Your task to perform on an android device: turn on improve location accuracy Image 0: 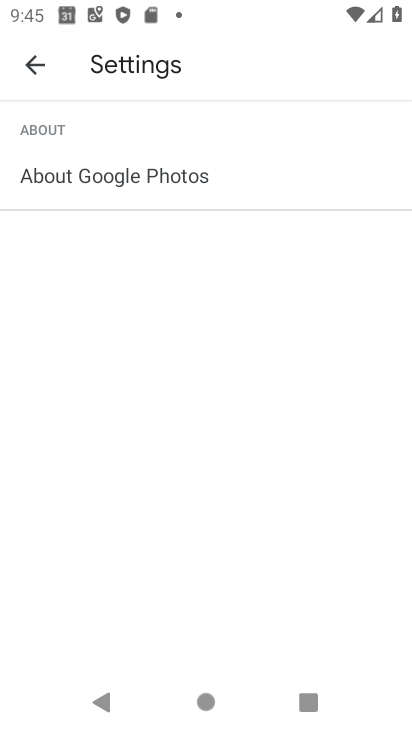
Step 0: press home button
Your task to perform on an android device: turn on improve location accuracy Image 1: 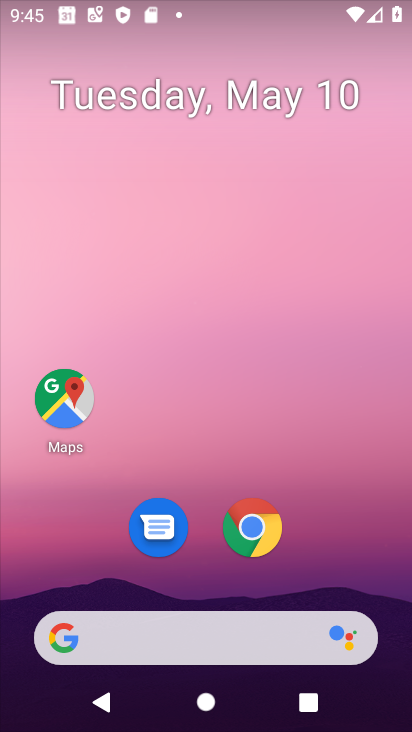
Step 1: drag from (239, 589) to (245, 306)
Your task to perform on an android device: turn on improve location accuracy Image 2: 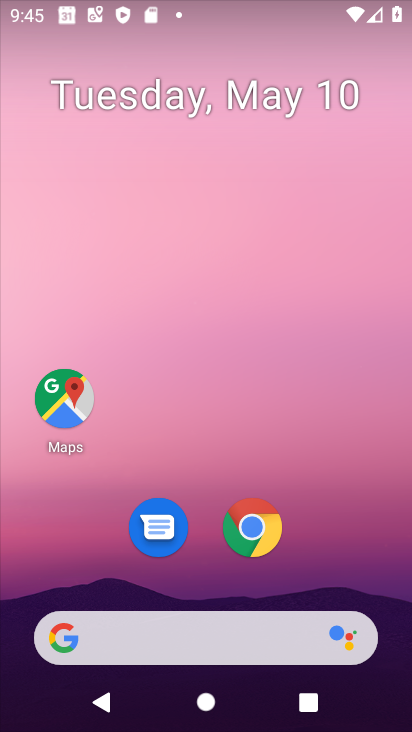
Step 2: drag from (338, 517) to (321, 472)
Your task to perform on an android device: turn on improve location accuracy Image 3: 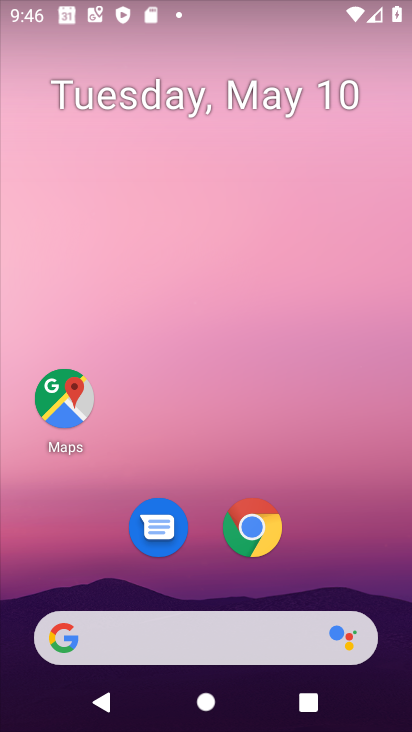
Step 3: drag from (299, 591) to (334, 311)
Your task to perform on an android device: turn on improve location accuracy Image 4: 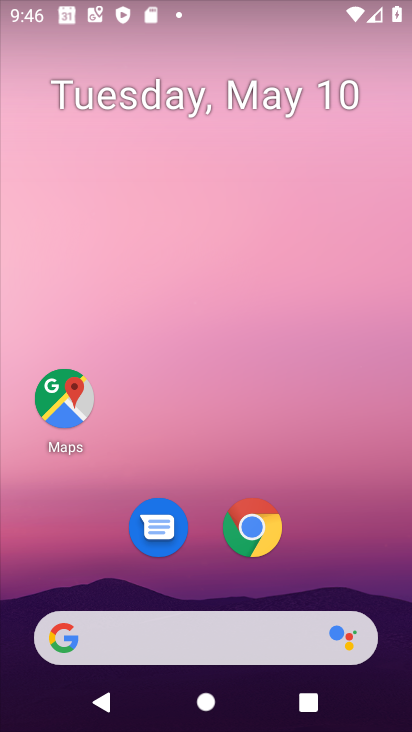
Step 4: drag from (315, 582) to (327, 275)
Your task to perform on an android device: turn on improve location accuracy Image 5: 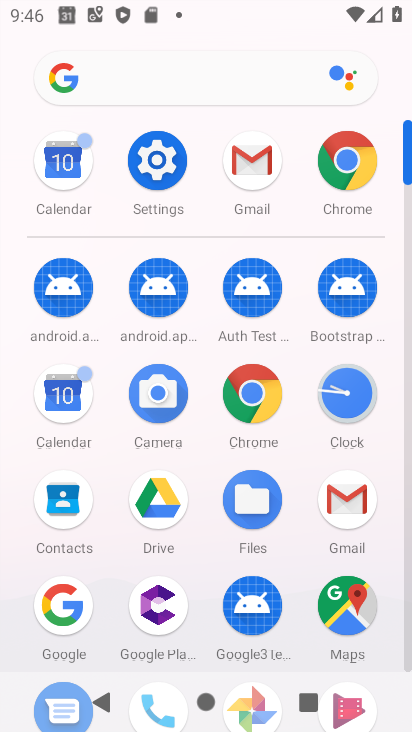
Step 5: click (170, 207)
Your task to perform on an android device: turn on improve location accuracy Image 6: 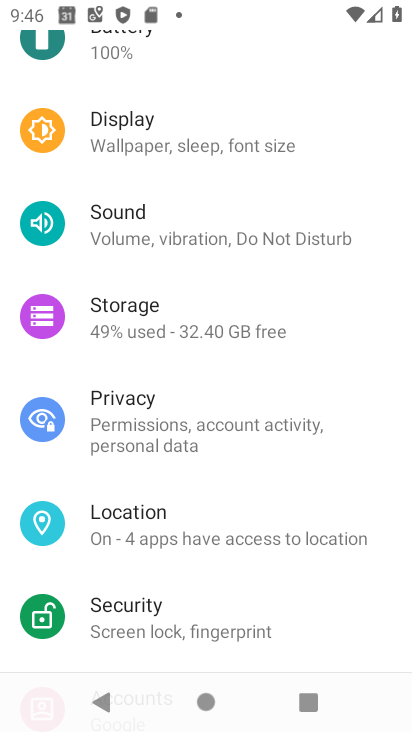
Step 6: click (150, 542)
Your task to perform on an android device: turn on improve location accuracy Image 7: 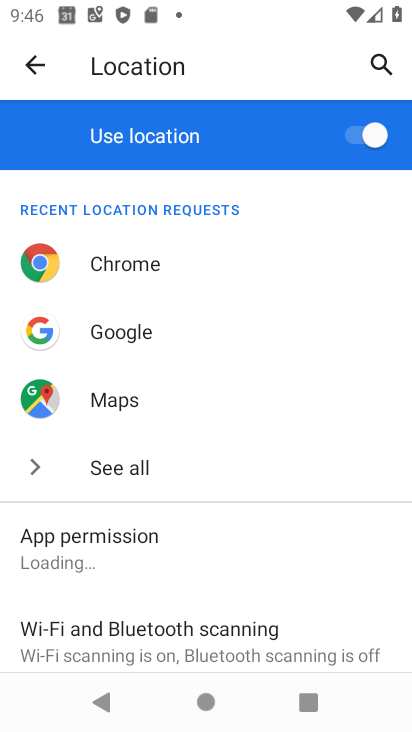
Step 7: click (121, 638)
Your task to perform on an android device: turn on improve location accuracy Image 8: 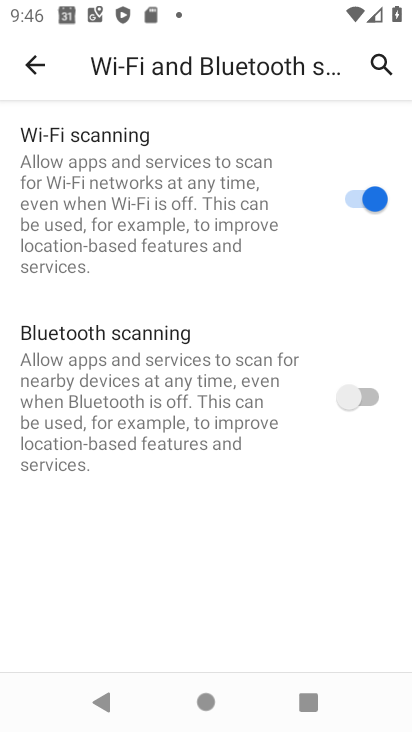
Step 8: press back button
Your task to perform on an android device: turn on improve location accuracy Image 9: 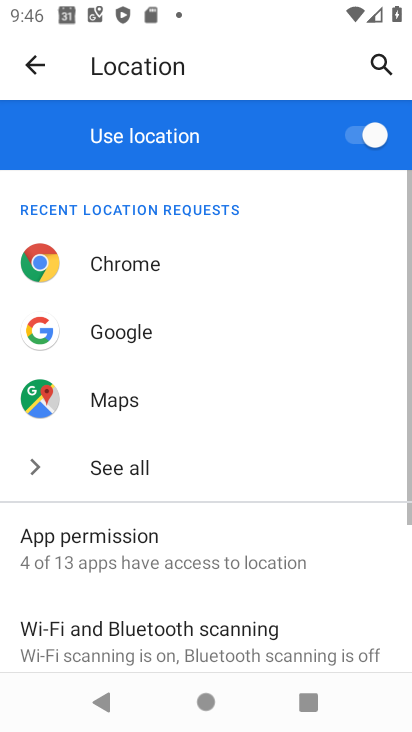
Step 9: drag from (222, 615) to (270, 341)
Your task to perform on an android device: turn on improve location accuracy Image 10: 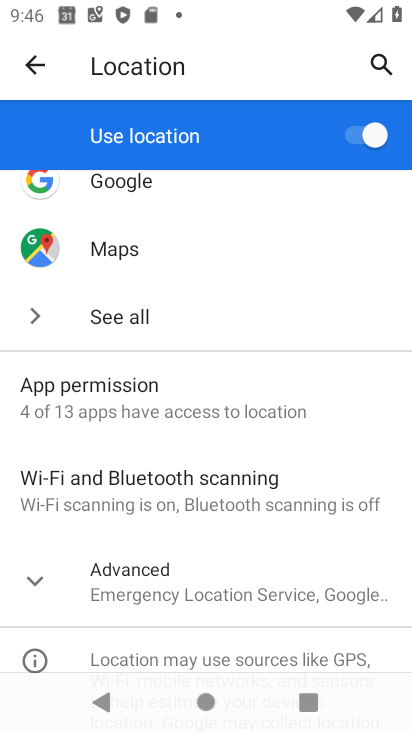
Step 10: click (146, 583)
Your task to perform on an android device: turn on improve location accuracy Image 11: 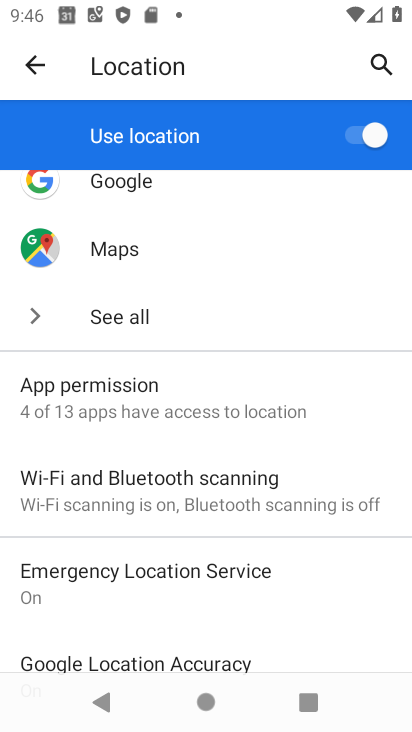
Step 11: task complete